Your task to perform on an android device: turn off data saver in the chrome app Image 0: 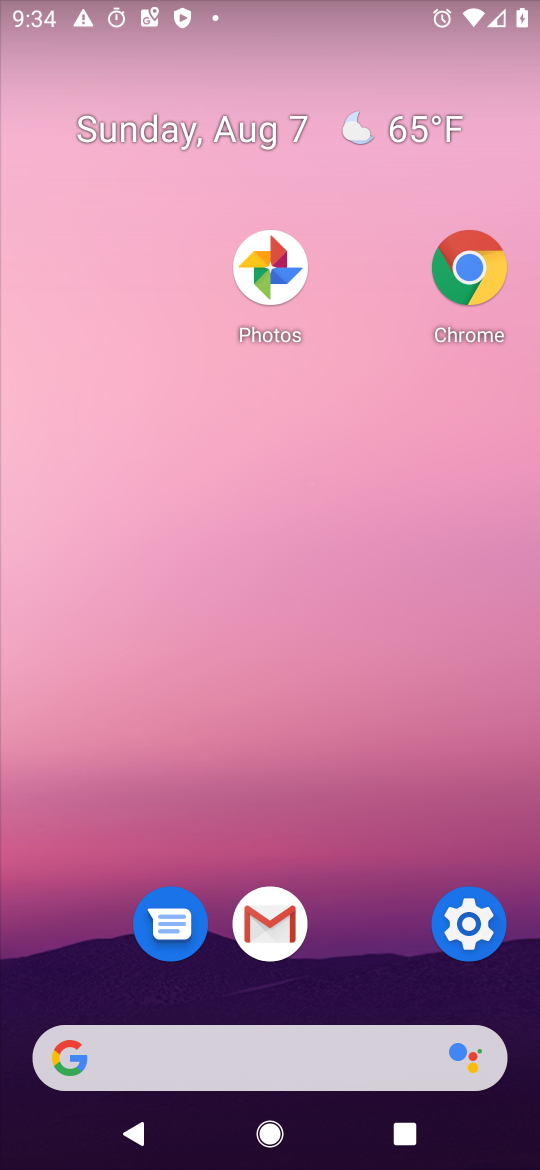
Step 0: press home button
Your task to perform on an android device: turn off data saver in the chrome app Image 1: 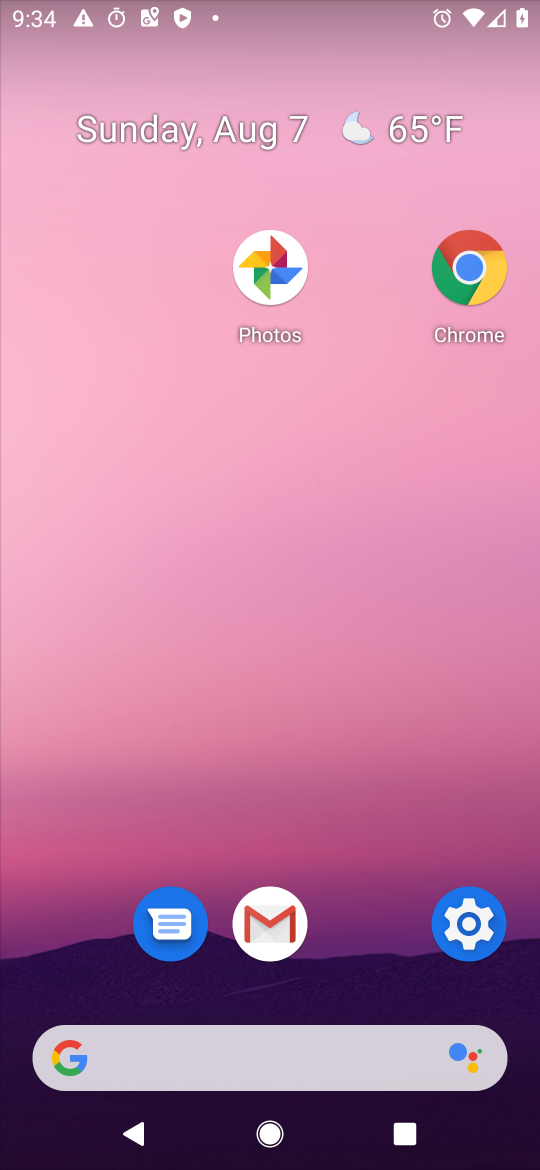
Step 1: drag from (356, 817) to (298, 301)
Your task to perform on an android device: turn off data saver in the chrome app Image 2: 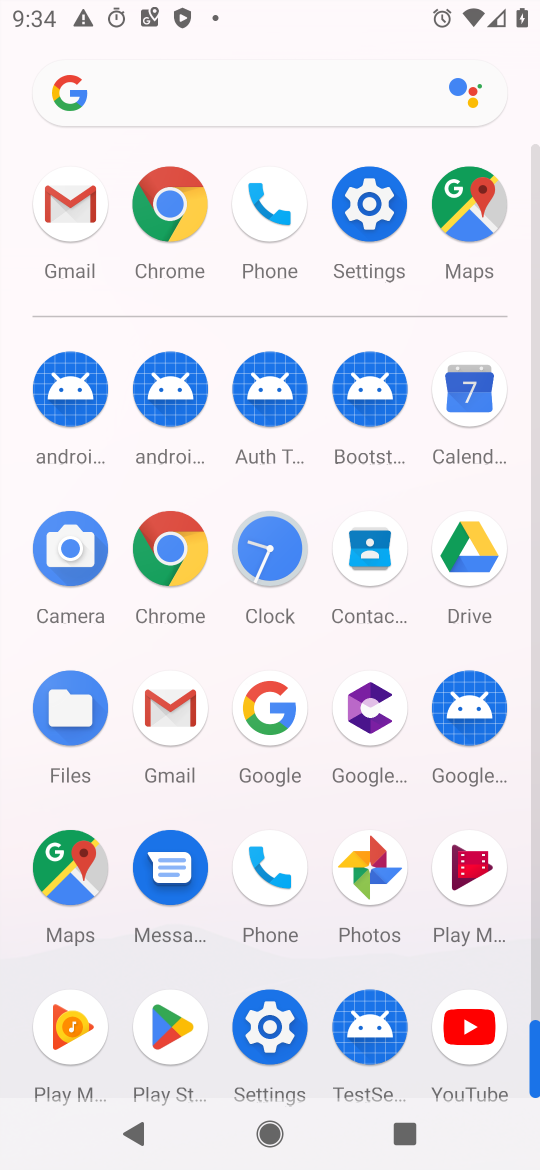
Step 2: click (183, 201)
Your task to perform on an android device: turn off data saver in the chrome app Image 3: 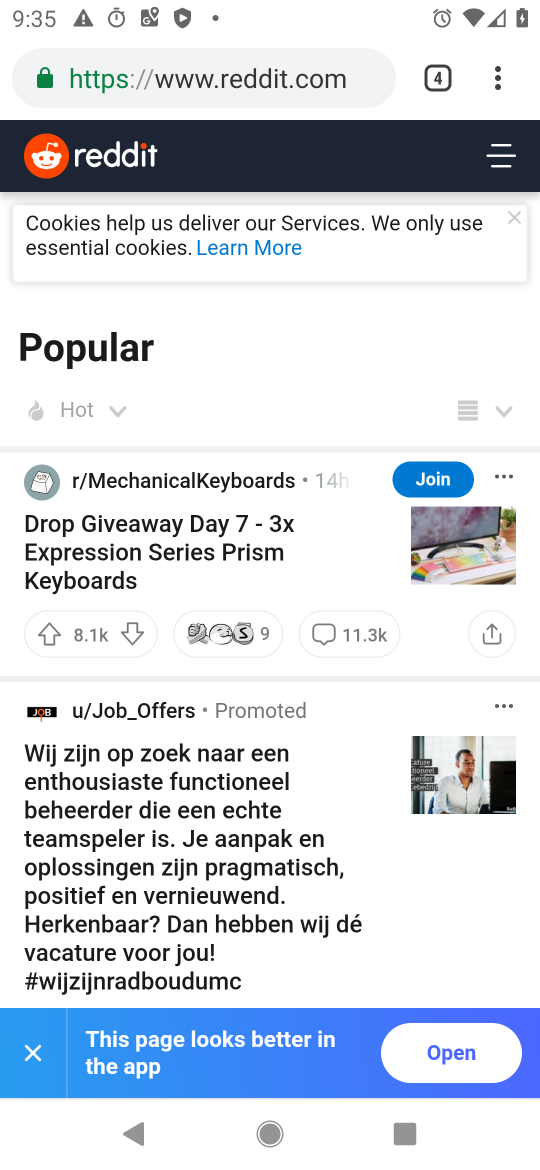
Step 3: click (506, 84)
Your task to perform on an android device: turn off data saver in the chrome app Image 4: 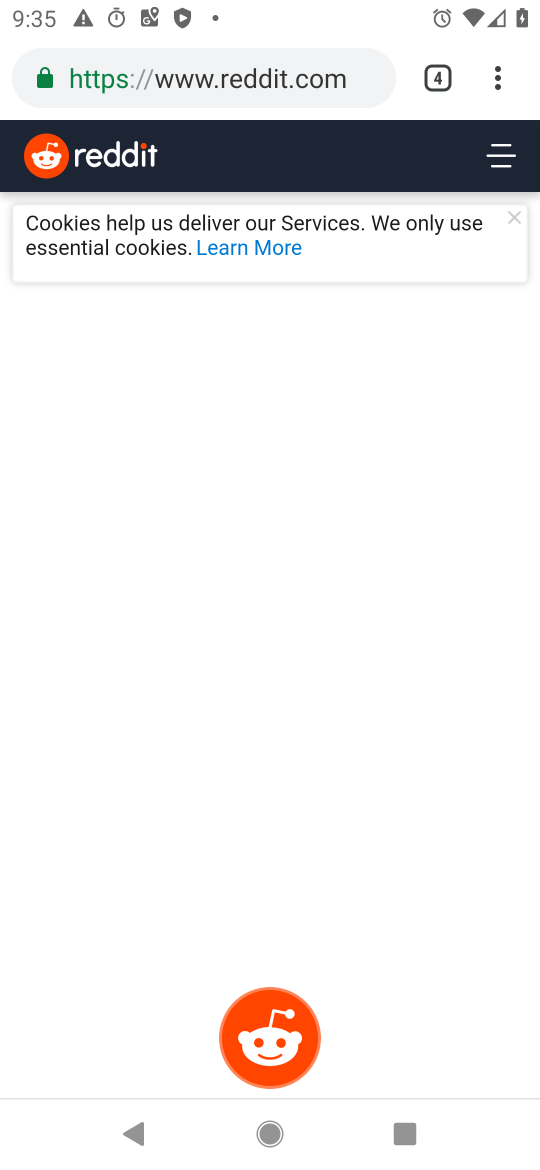
Step 4: click (497, 81)
Your task to perform on an android device: turn off data saver in the chrome app Image 5: 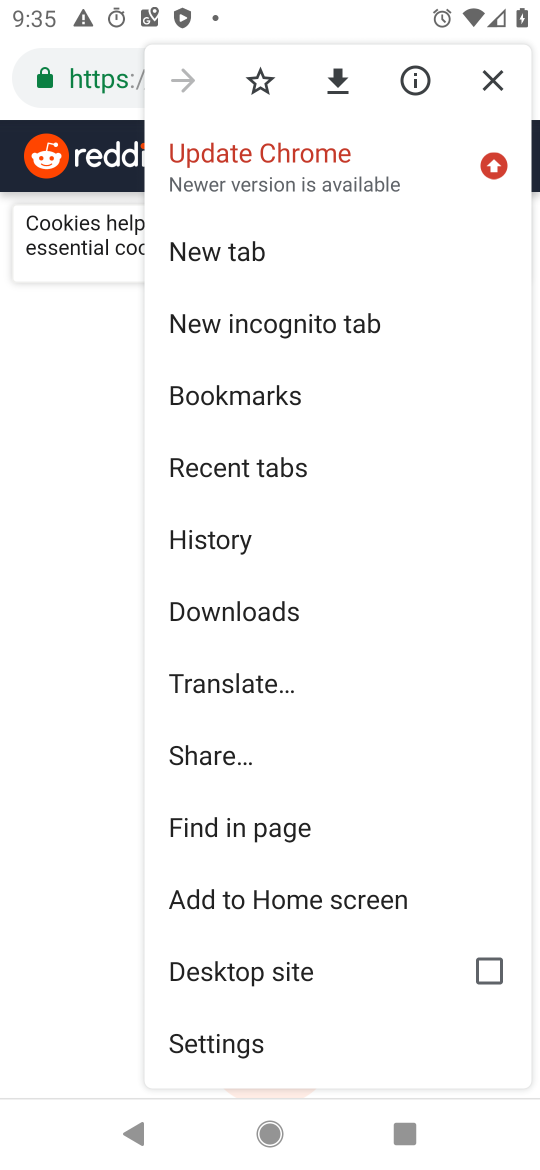
Step 5: click (225, 1036)
Your task to perform on an android device: turn off data saver in the chrome app Image 6: 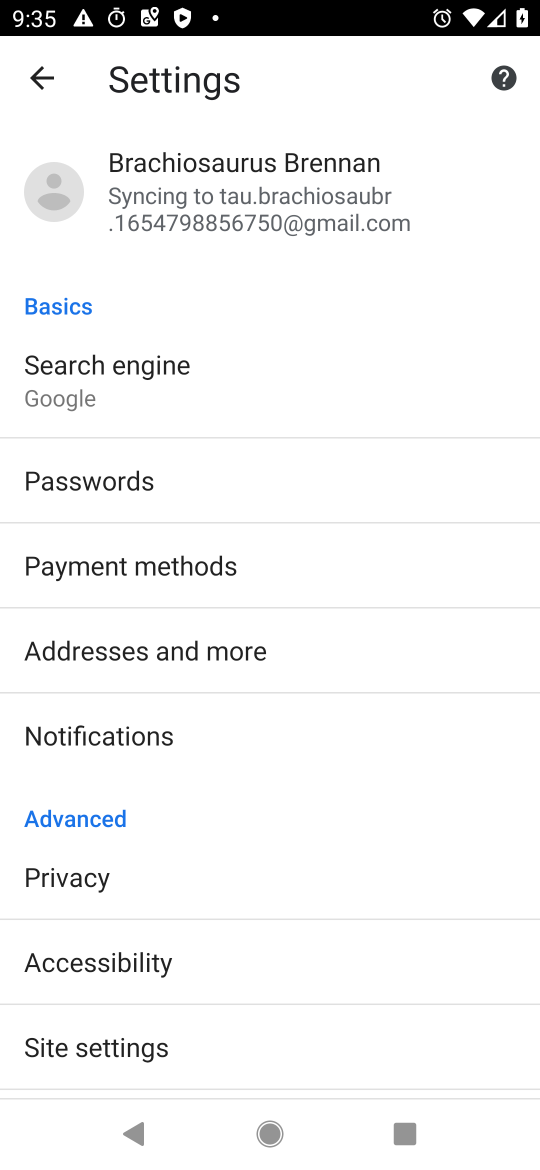
Step 6: drag from (279, 746) to (305, 597)
Your task to perform on an android device: turn off data saver in the chrome app Image 7: 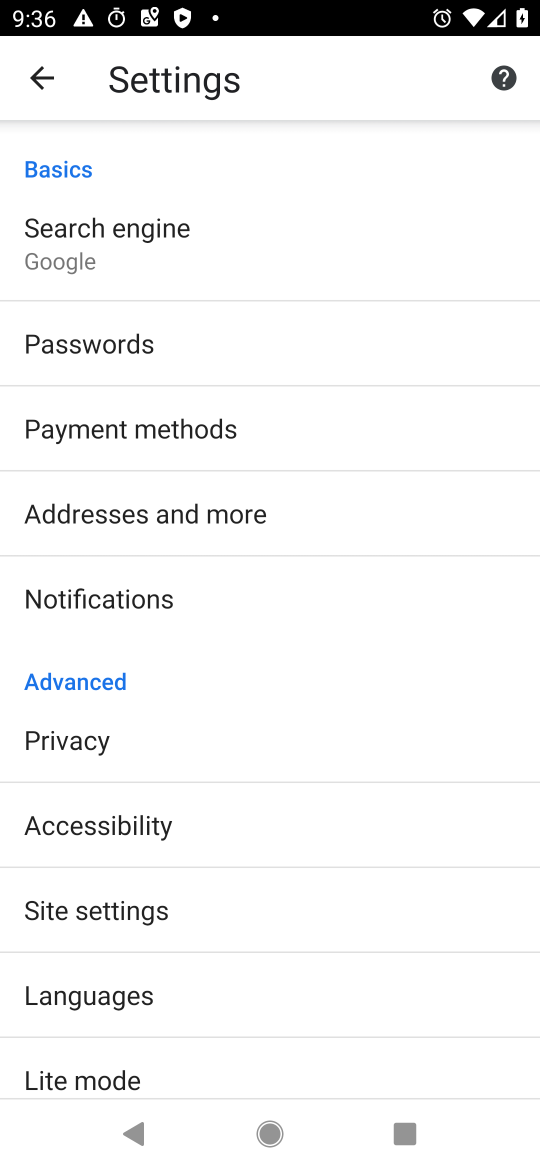
Step 7: click (118, 1053)
Your task to perform on an android device: turn off data saver in the chrome app Image 8: 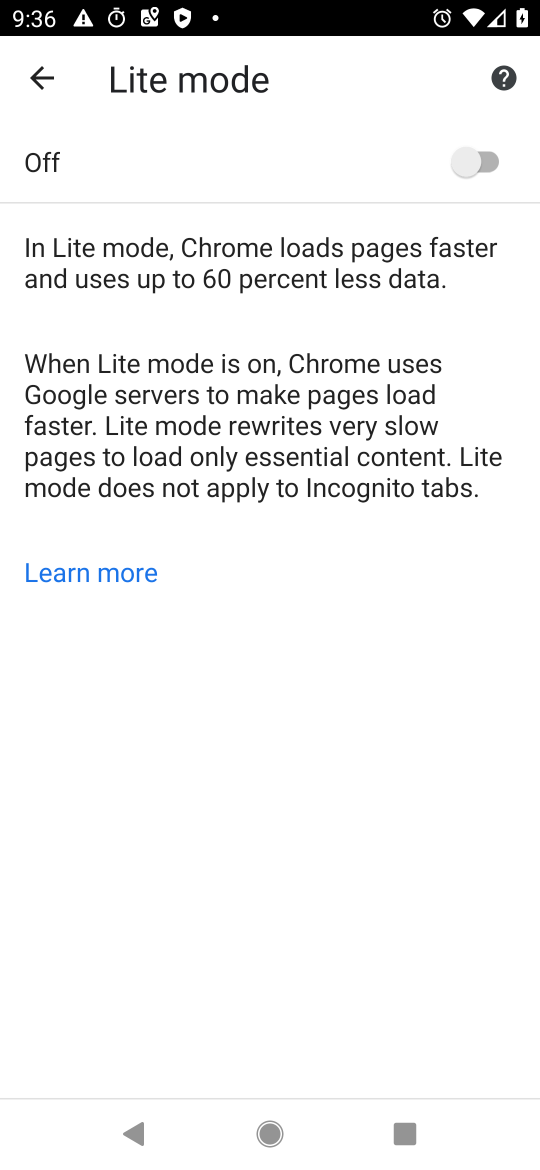
Step 8: task complete